Your task to perform on an android device: turn on bluetooth scan Image 0: 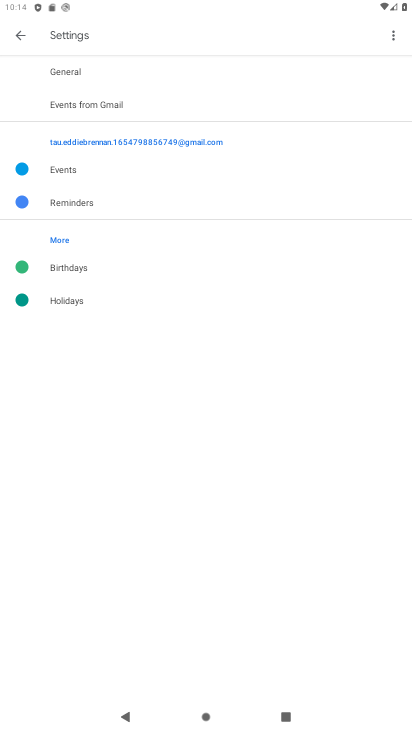
Step 0: drag from (238, 649) to (233, 419)
Your task to perform on an android device: turn on bluetooth scan Image 1: 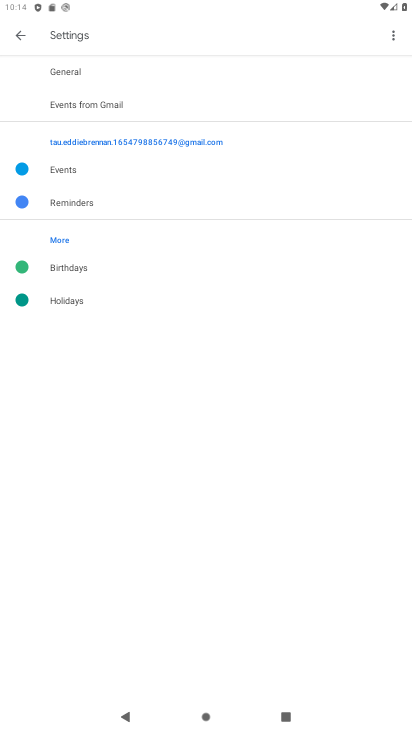
Step 1: press home button
Your task to perform on an android device: turn on bluetooth scan Image 2: 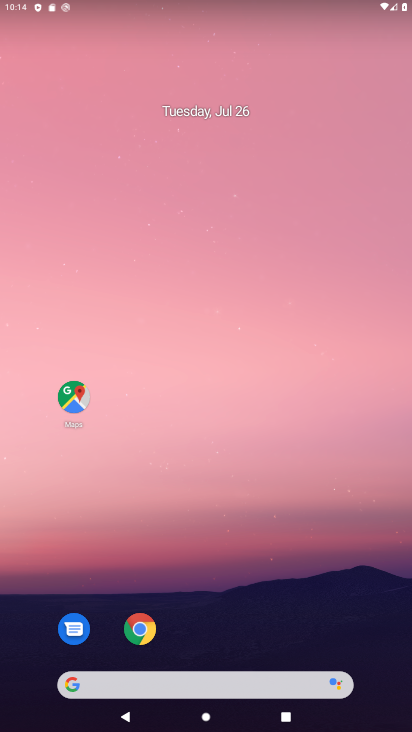
Step 2: drag from (294, 638) to (263, 31)
Your task to perform on an android device: turn on bluetooth scan Image 3: 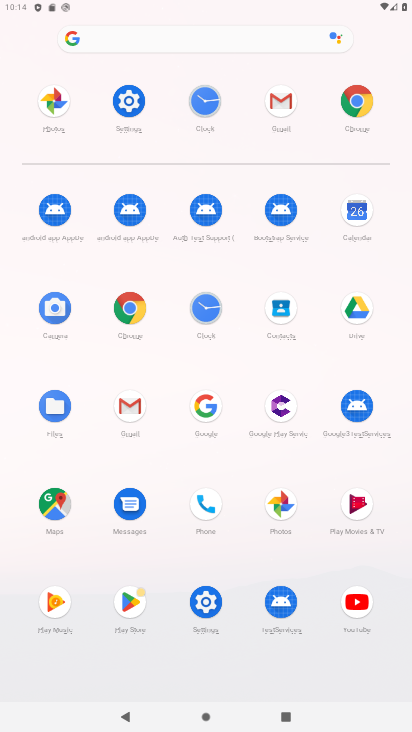
Step 3: click (213, 626)
Your task to perform on an android device: turn on bluetooth scan Image 4: 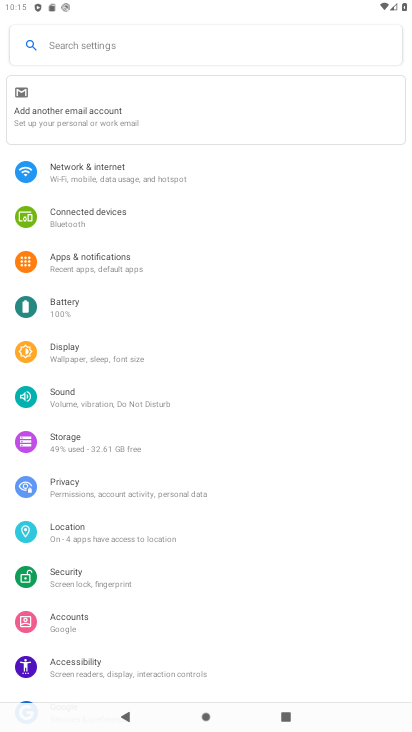
Step 4: click (151, 546)
Your task to perform on an android device: turn on bluetooth scan Image 5: 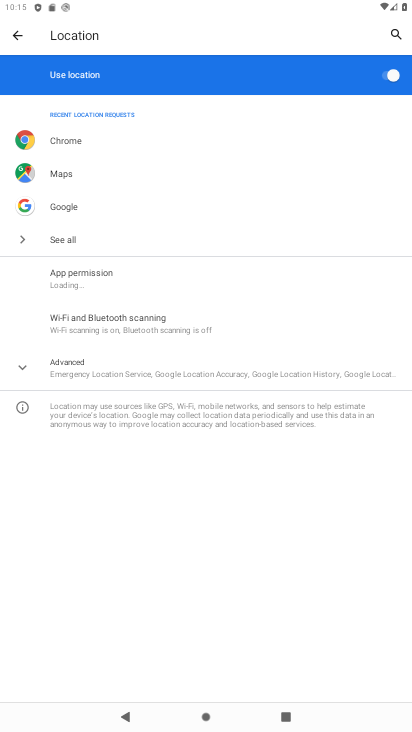
Step 5: click (392, 80)
Your task to perform on an android device: turn on bluetooth scan Image 6: 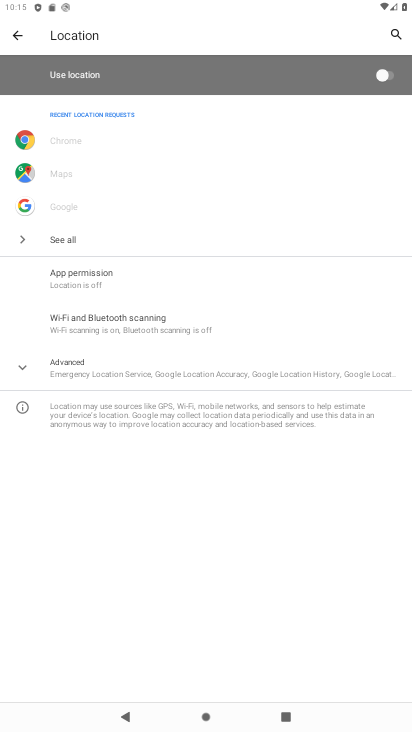
Step 6: task complete